Your task to perform on an android device: visit the assistant section in the google photos Image 0: 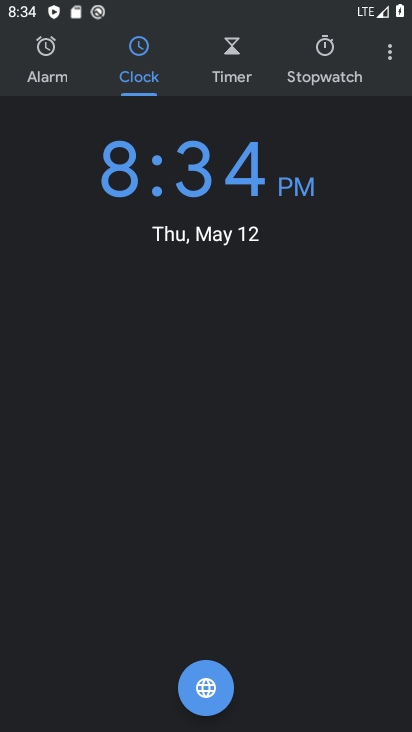
Step 0: press back button
Your task to perform on an android device: visit the assistant section in the google photos Image 1: 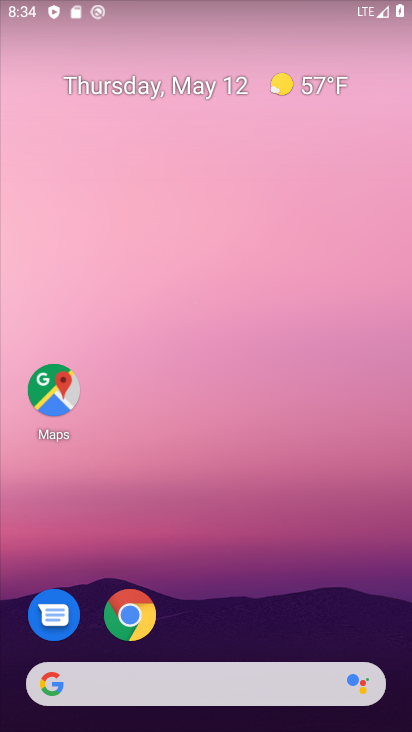
Step 1: drag from (272, 520) to (232, 56)
Your task to perform on an android device: visit the assistant section in the google photos Image 2: 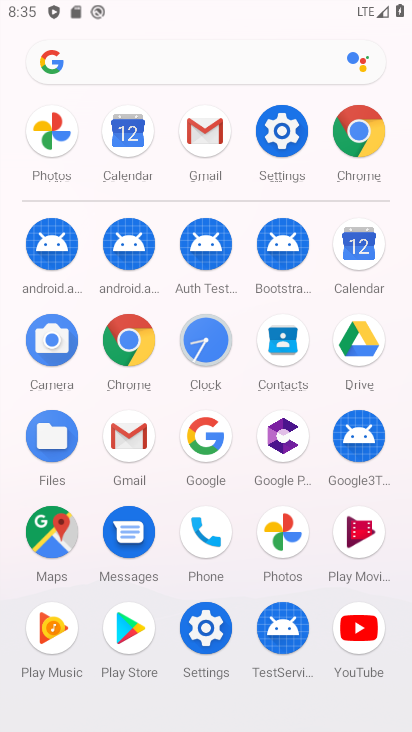
Step 2: click (285, 530)
Your task to perform on an android device: visit the assistant section in the google photos Image 3: 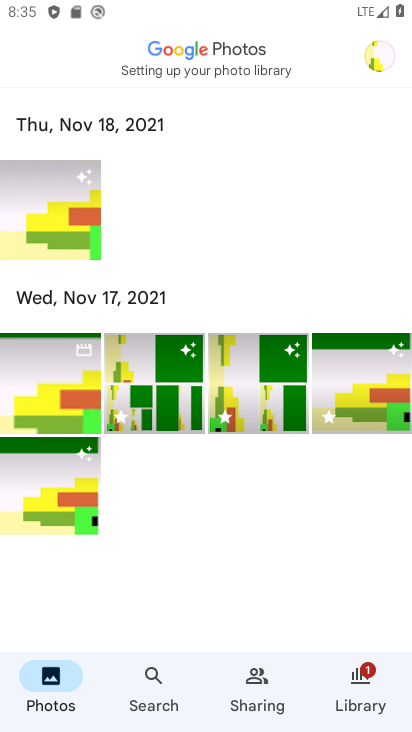
Step 3: click (352, 685)
Your task to perform on an android device: visit the assistant section in the google photos Image 4: 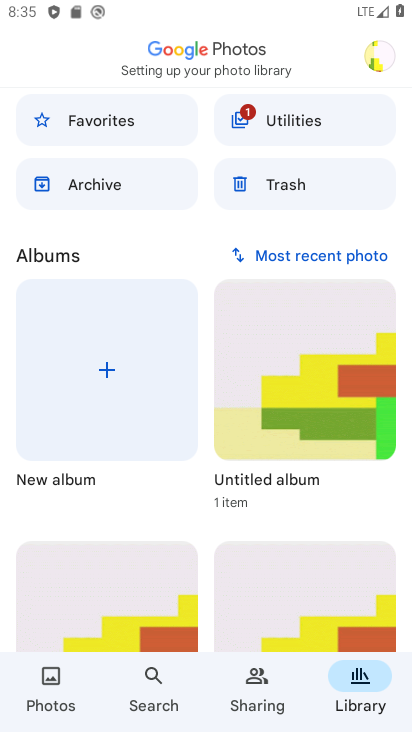
Step 4: click (268, 697)
Your task to perform on an android device: visit the assistant section in the google photos Image 5: 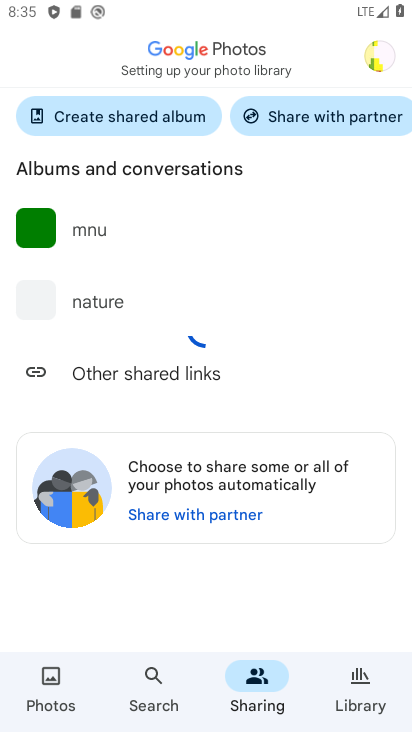
Step 5: task complete